Your task to perform on an android device: Turn off the flashlight Image 0: 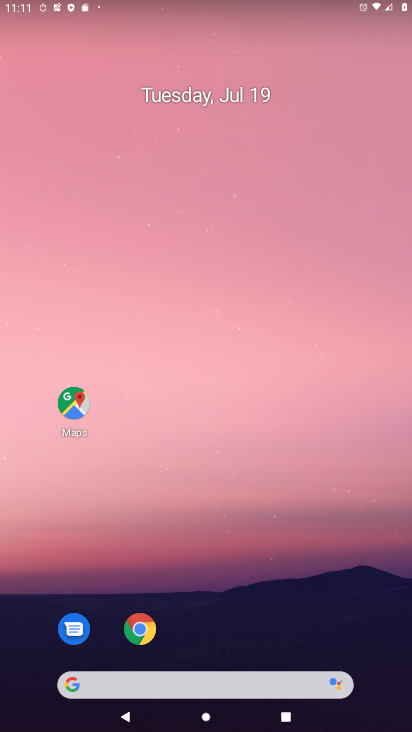
Step 0: drag from (265, 649) to (222, 184)
Your task to perform on an android device: Turn off the flashlight Image 1: 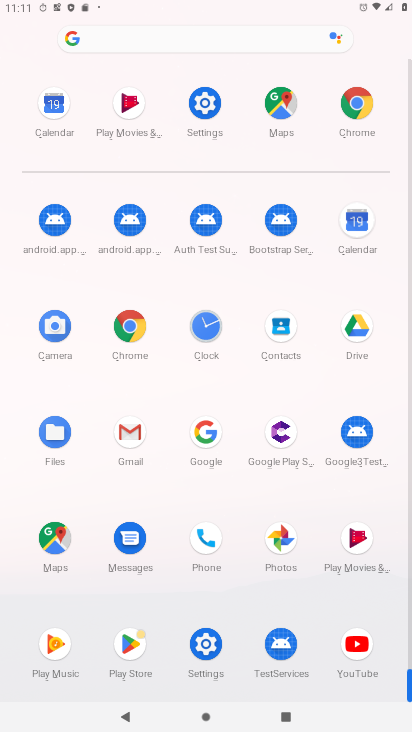
Step 1: task complete